Your task to perform on an android device: Look up the best selling books on Goodreads. Image 0: 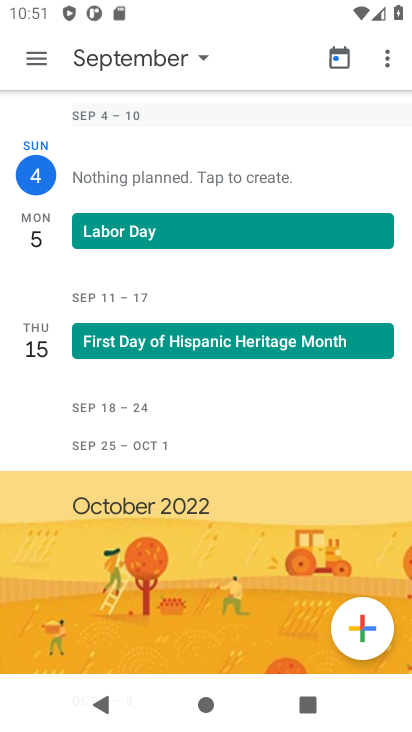
Step 0: press home button
Your task to perform on an android device: Look up the best selling books on Goodreads. Image 1: 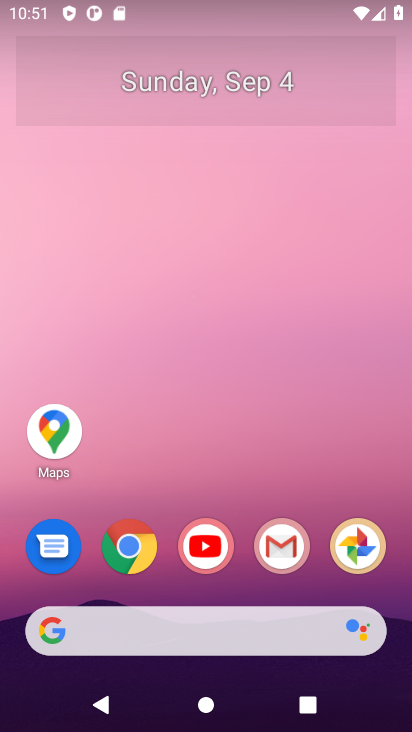
Step 1: click (123, 556)
Your task to perform on an android device: Look up the best selling books on Goodreads. Image 2: 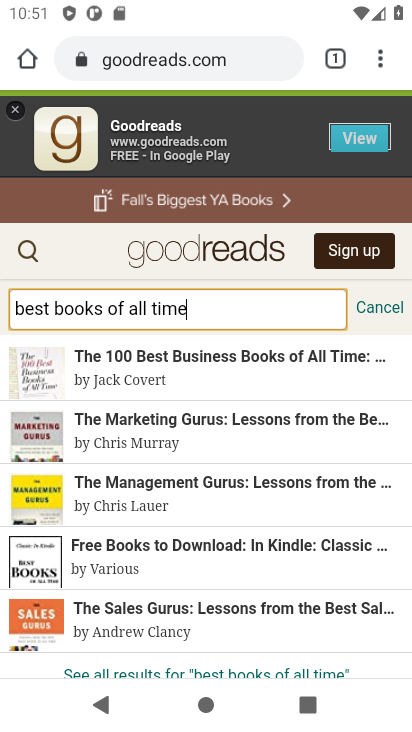
Step 2: click (368, 310)
Your task to perform on an android device: Look up the best selling books on Goodreads. Image 3: 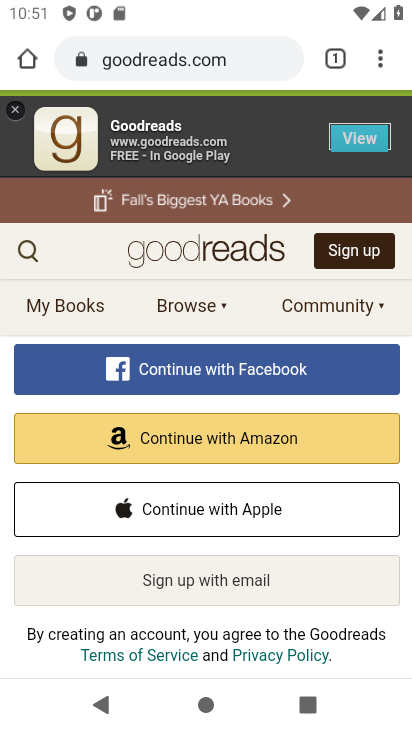
Step 3: click (15, 239)
Your task to perform on an android device: Look up the best selling books on Goodreads. Image 4: 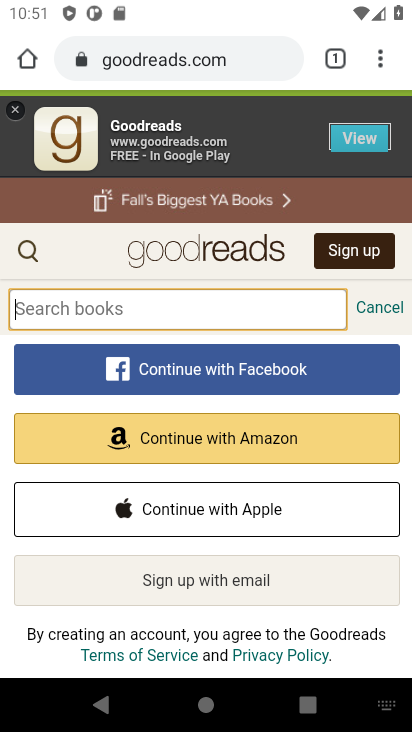
Step 4: click (51, 309)
Your task to perform on an android device: Look up the best selling books on Goodreads. Image 5: 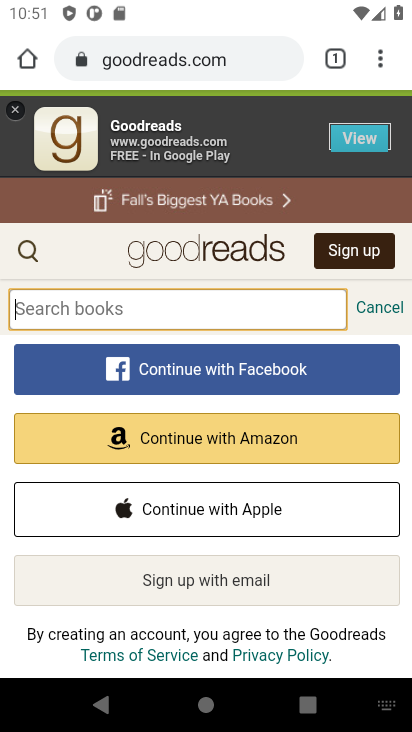
Step 5: type " the best selling books "
Your task to perform on an android device: Look up the best selling books on Goodreads. Image 6: 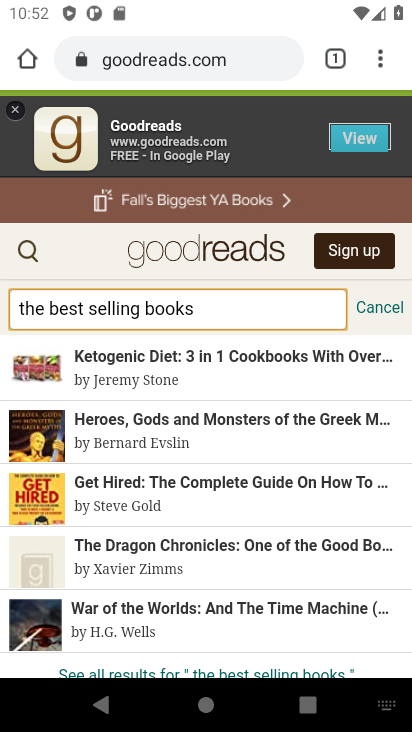
Step 6: task complete